Your task to perform on an android device: Open eBay Image 0: 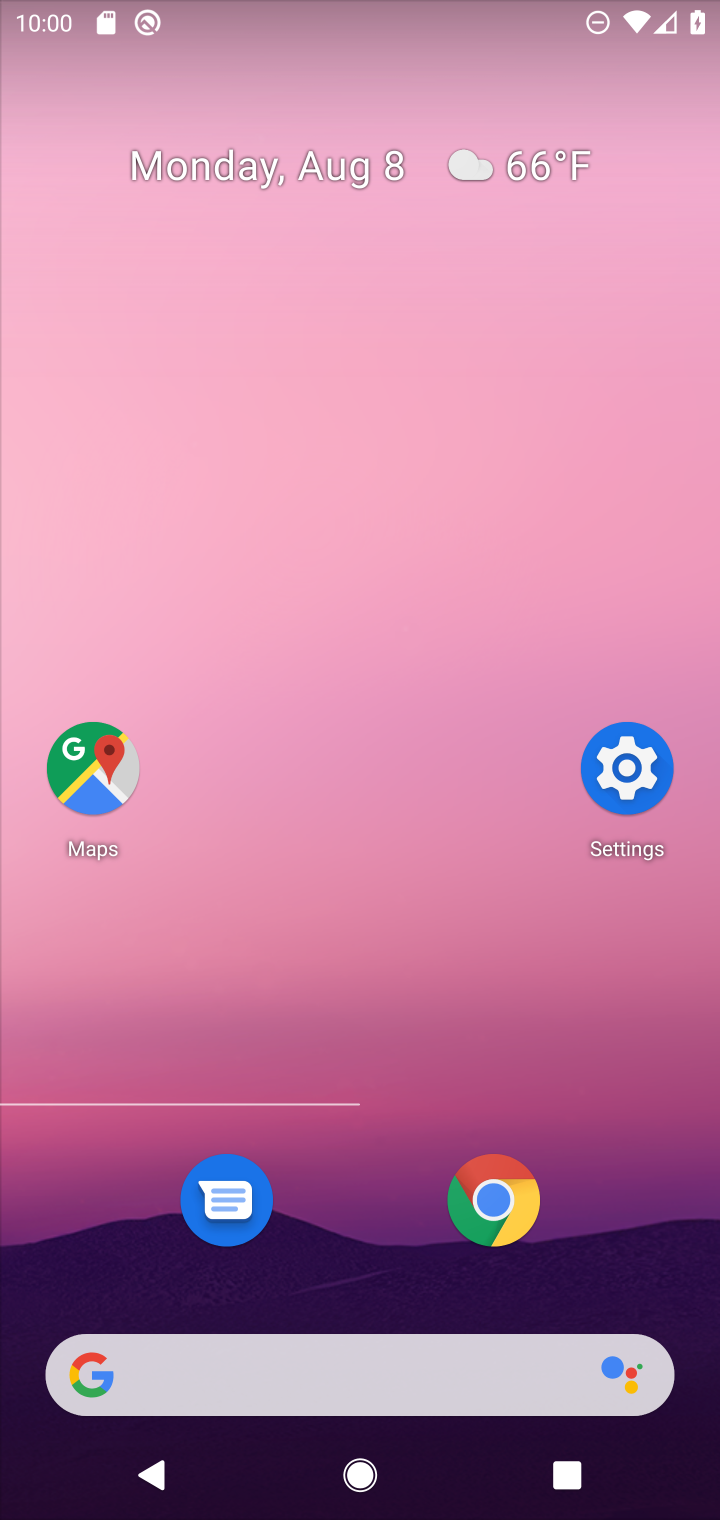
Step 0: click (499, 1197)
Your task to perform on an android device: Open eBay Image 1: 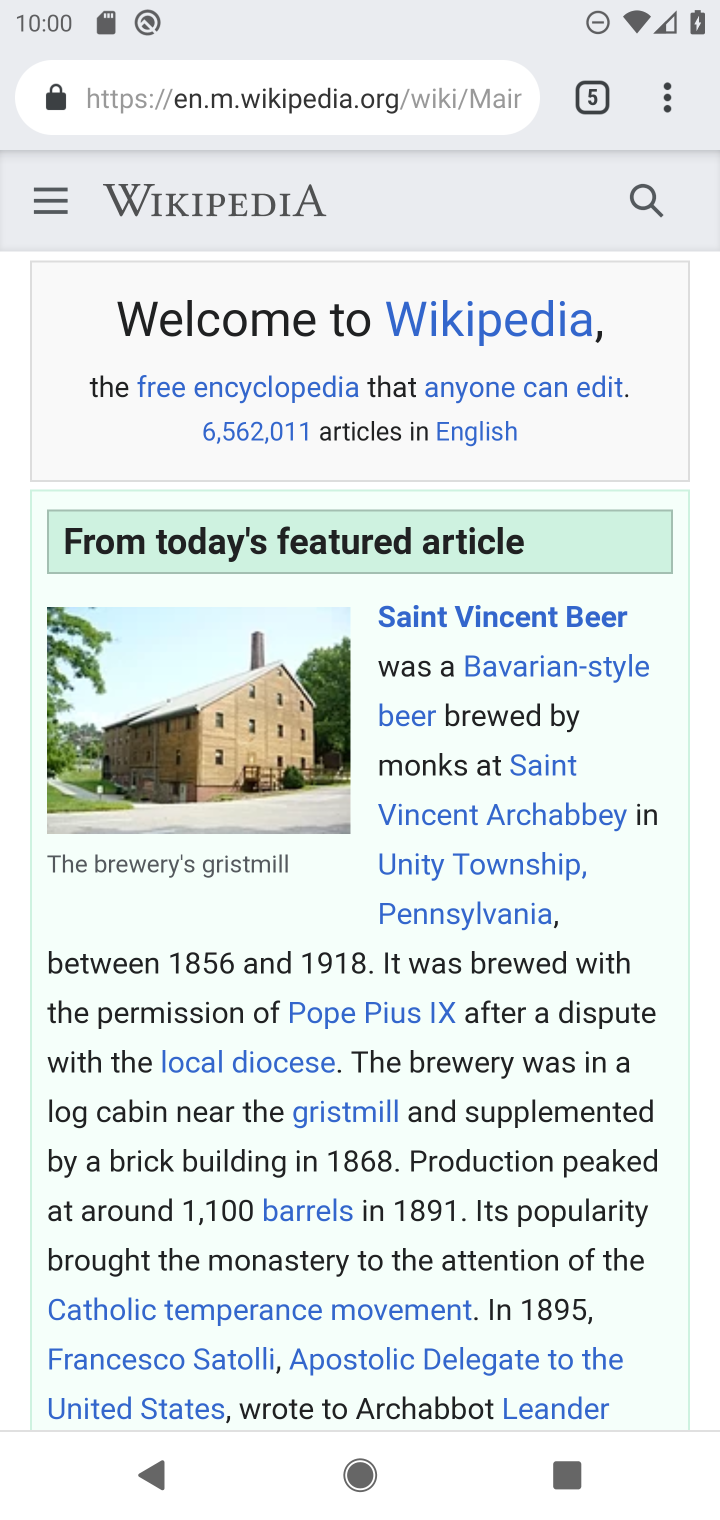
Step 1: drag from (662, 88) to (342, 313)
Your task to perform on an android device: Open eBay Image 2: 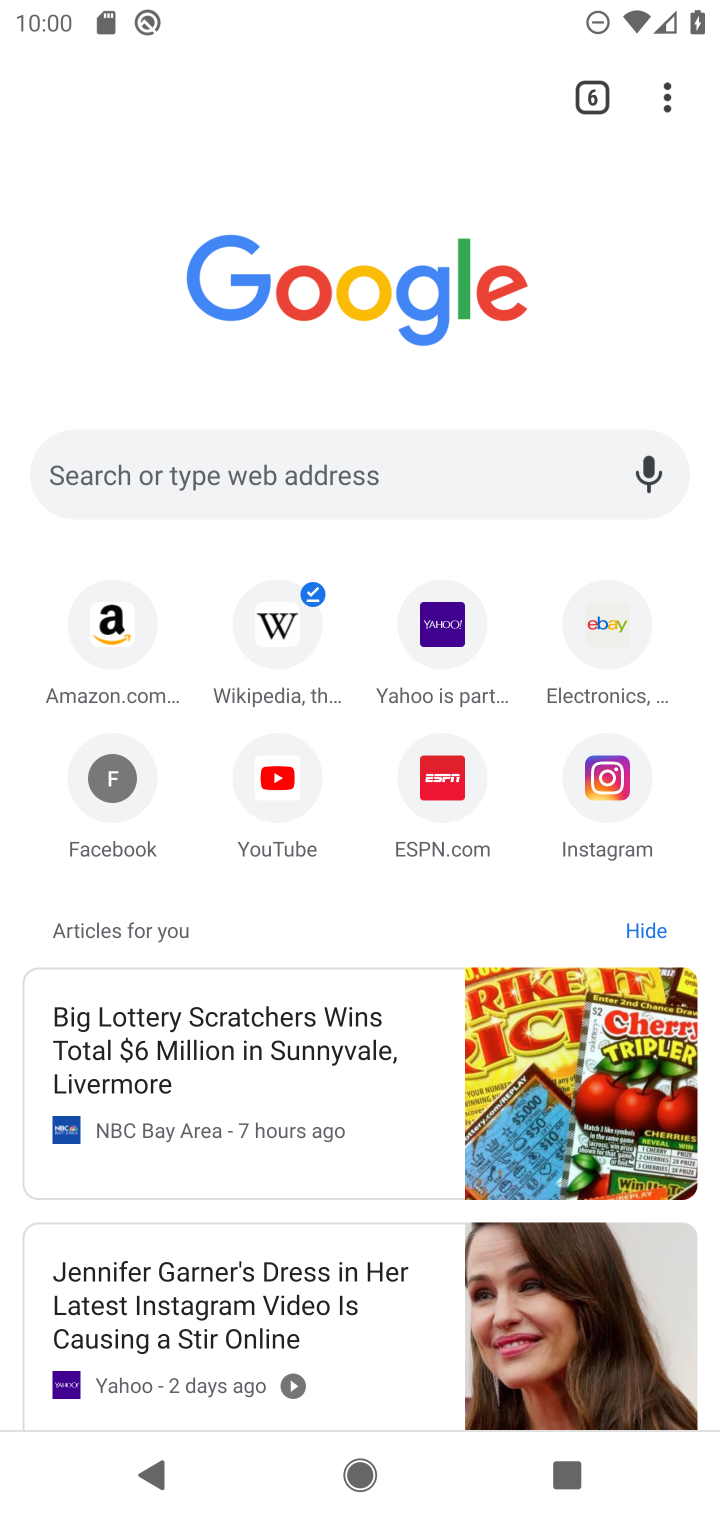
Step 2: click (602, 616)
Your task to perform on an android device: Open eBay Image 3: 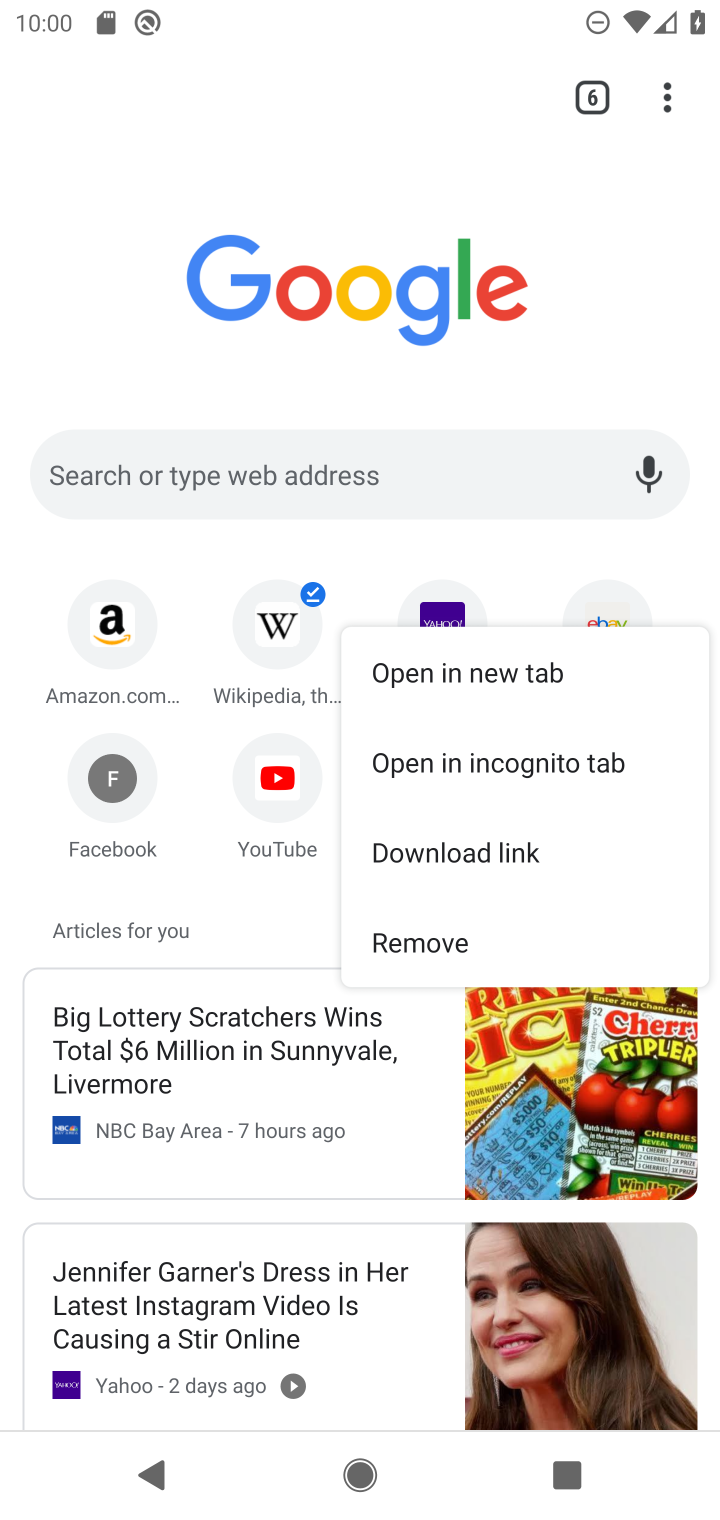
Step 3: click (602, 617)
Your task to perform on an android device: Open eBay Image 4: 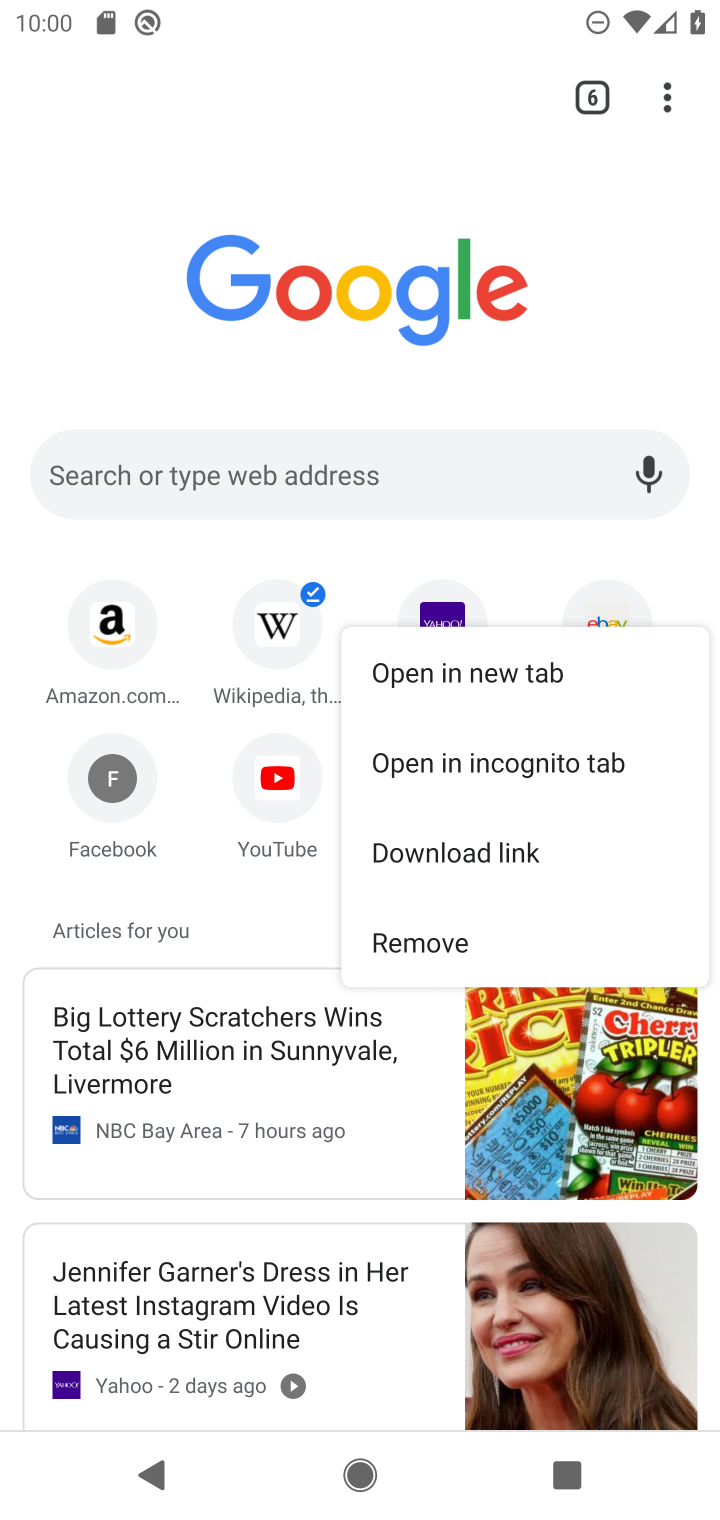
Step 4: click (604, 608)
Your task to perform on an android device: Open eBay Image 5: 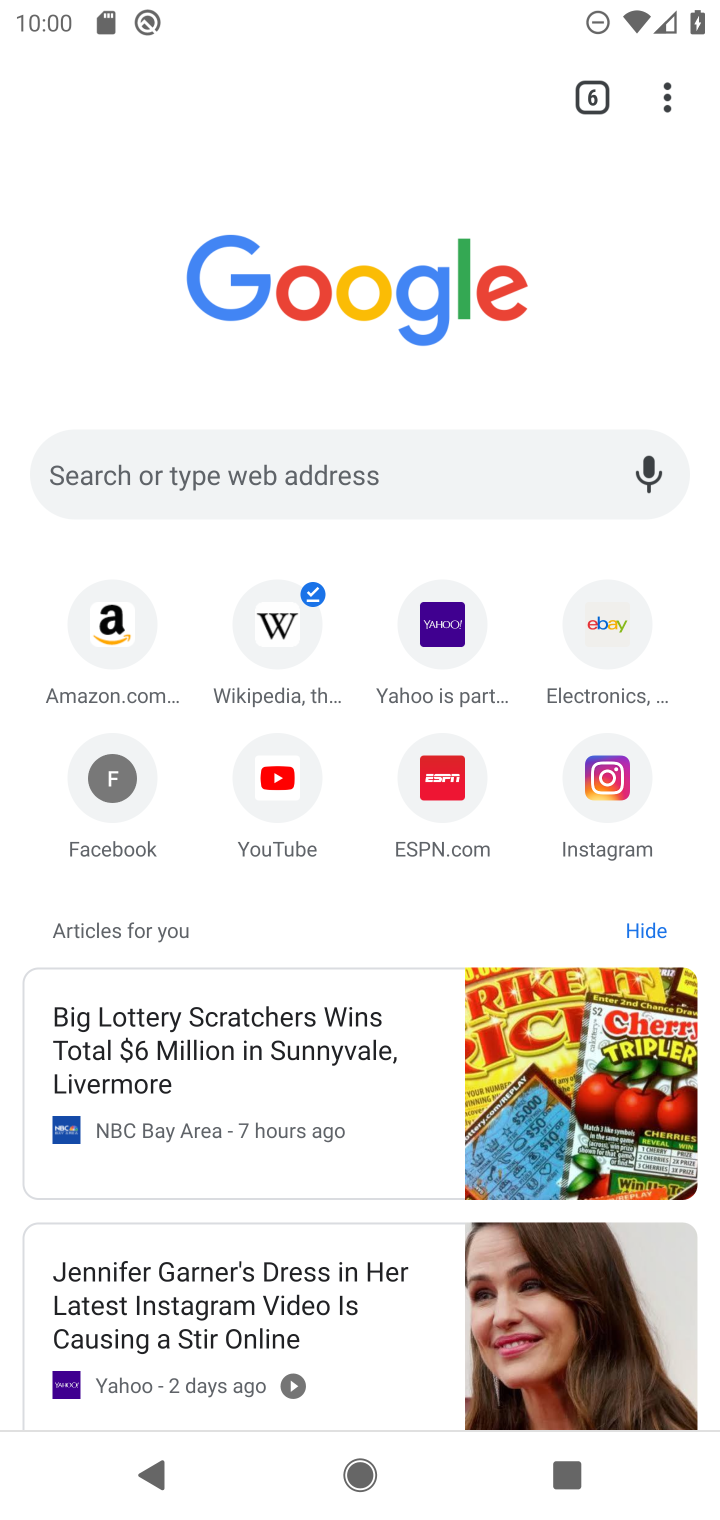
Step 5: click (592, 628)
Your task to perform on an android device: Open eBay Image 6: 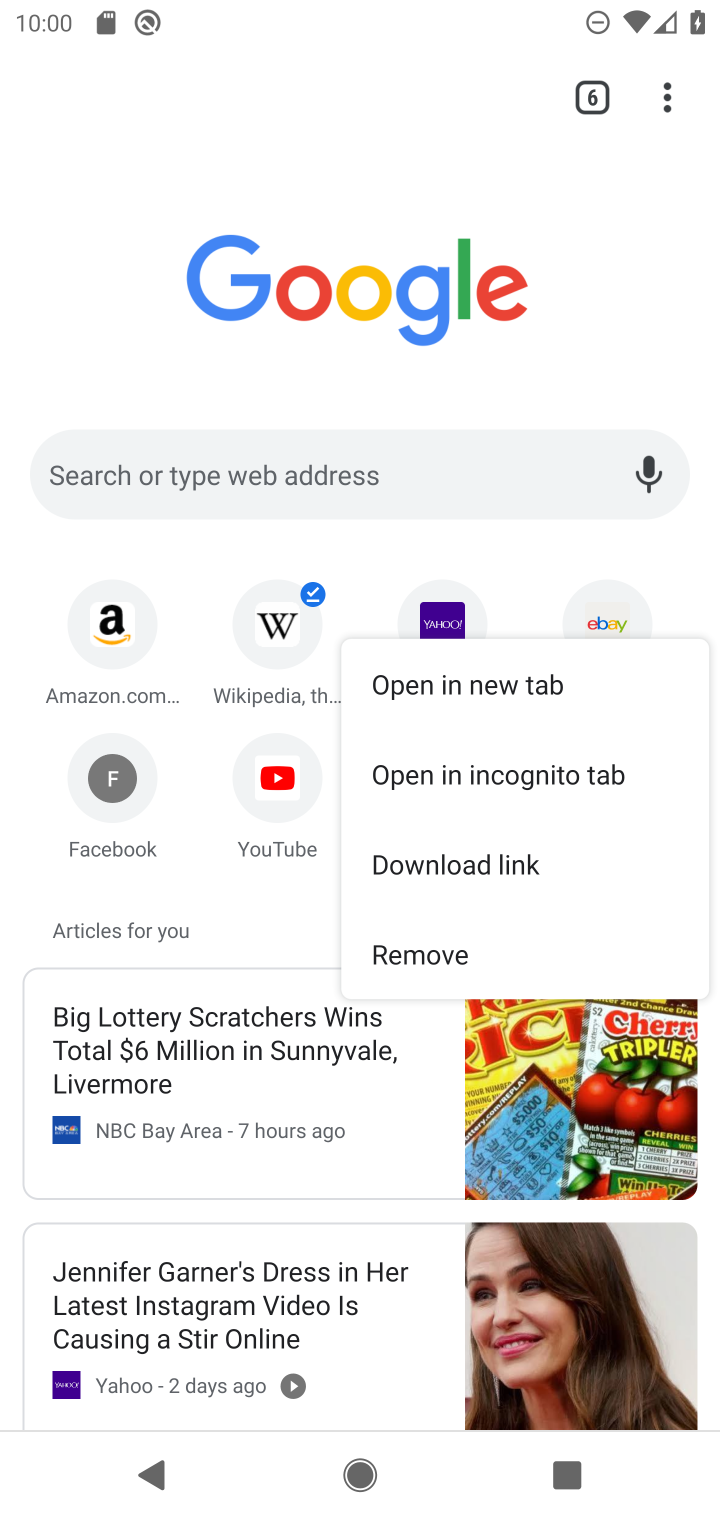
Step 6: click (605, 623)
Your task to perform on an android device: Open eBay Image 7: 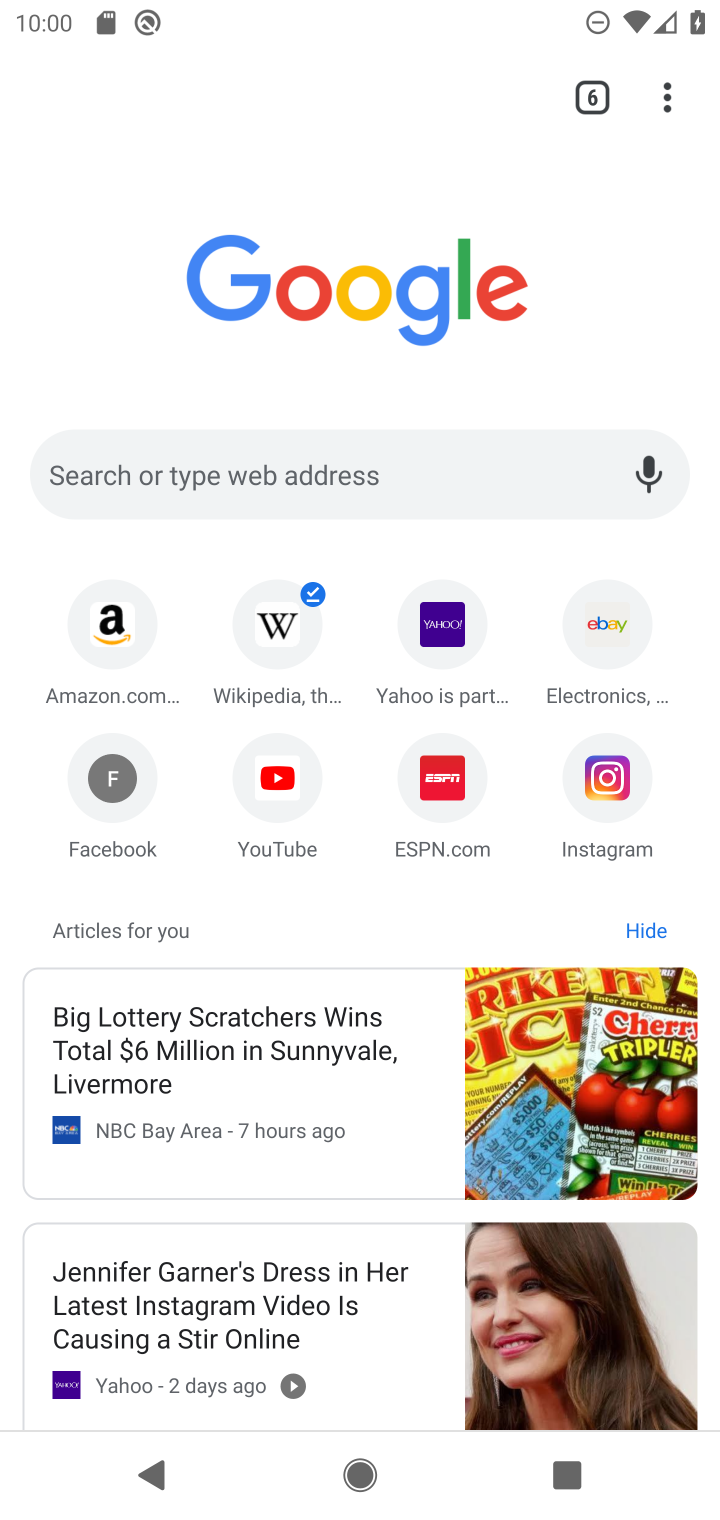
Step 7: click (608, 621)
Your task to perform on an android device: Open eBay Image 8: 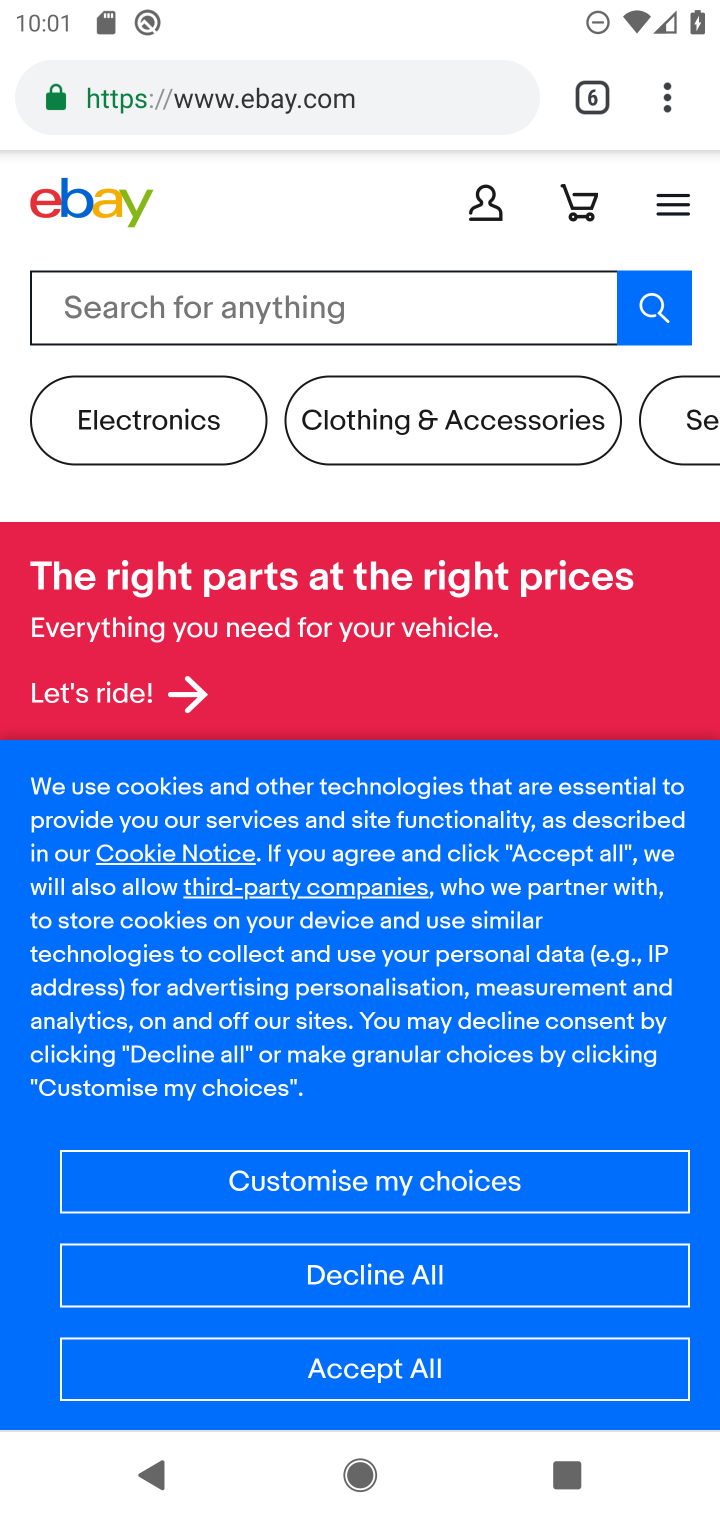
Step 8: click (403, 1359)
Your task to perform on an android device: Open eBay Image 9: 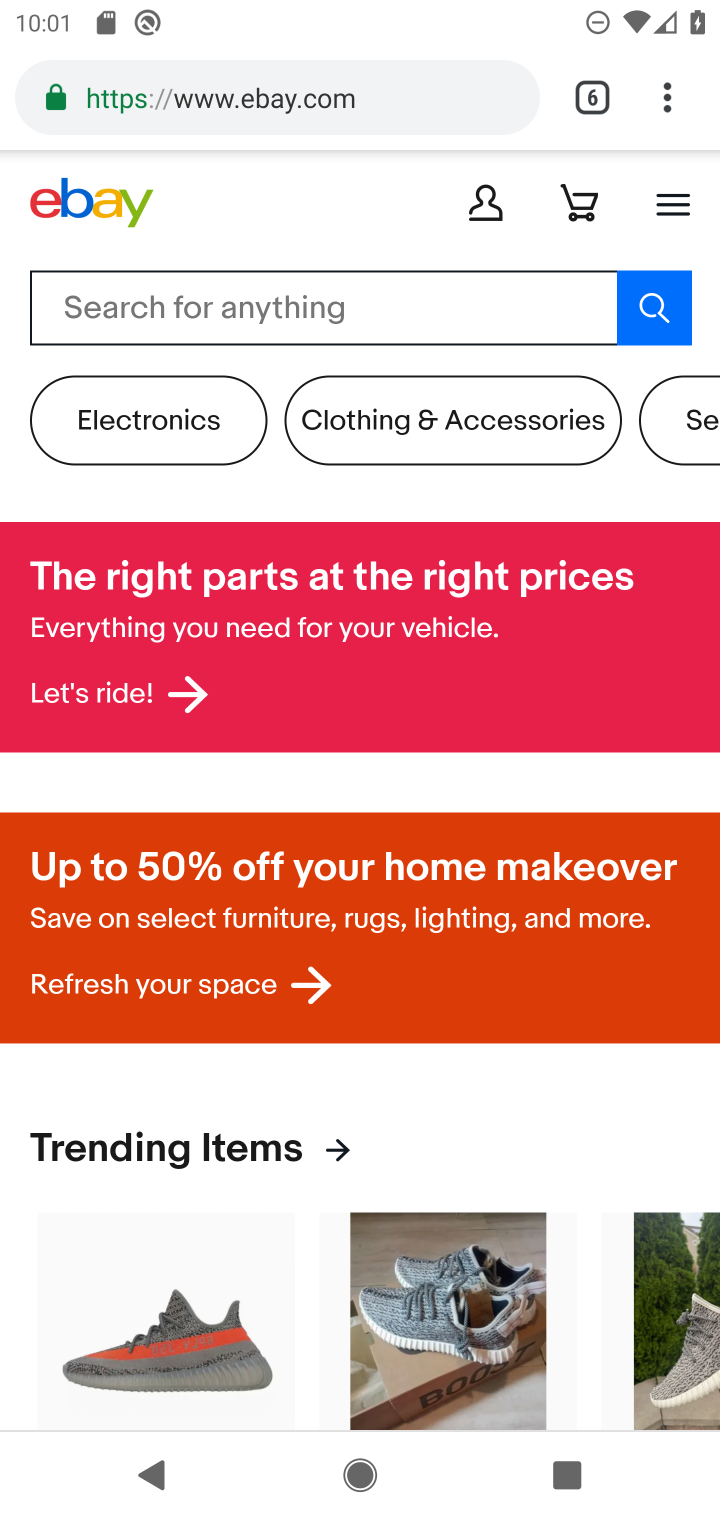
Step 9: task complete